Your task to perform on an android device: Open calendar and show me the fourth week of next month Image 0: 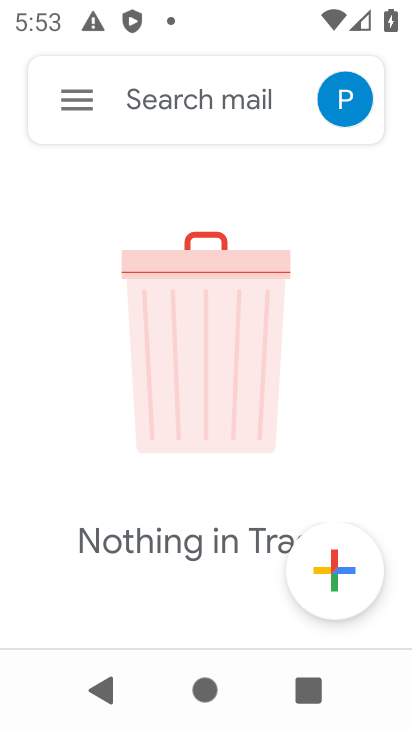
Step 0: press home button
Your task to perform on an android device: Open calendar and show me the fourth week of next month Image 1: 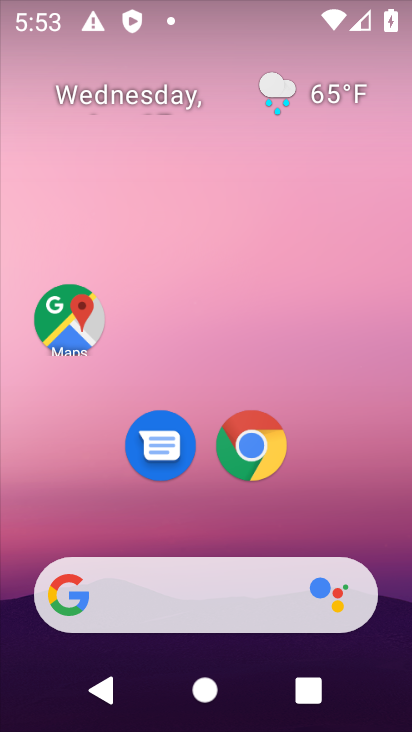
Step 1: drag from (200, 484) to (184, 148)
Your task to perform on an android device: Open calendar and show me the fourth week of next month Image 2: 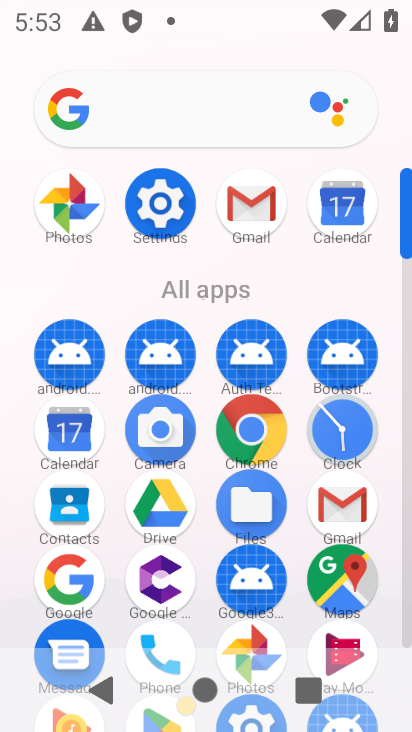
Step 2: click (334, 219)
Your task to perform on an android device: Open calendar and show me the fourth week of next month Image 3: 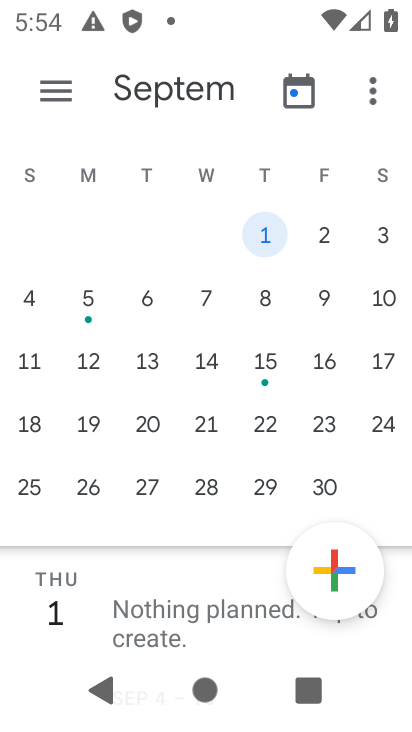
Step 3: click (33, 410)
Your task to perform on an android device: Open calendar and show me the fourth week of next month Image 4: 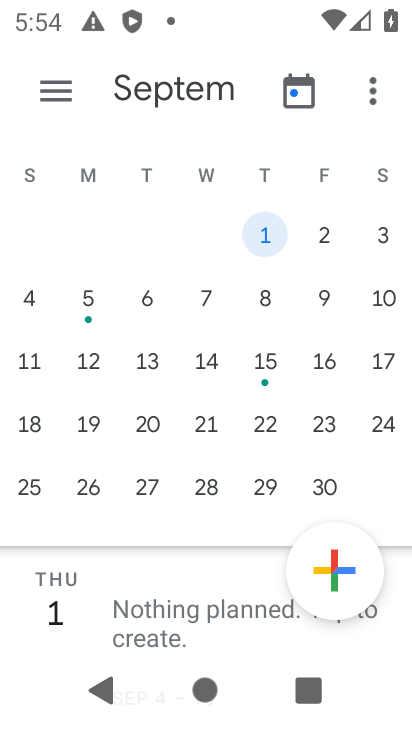
Step 4: click (36, 424)
Your task to perform on an android device: Open calendar and show me the fourth week of next month Image 5: 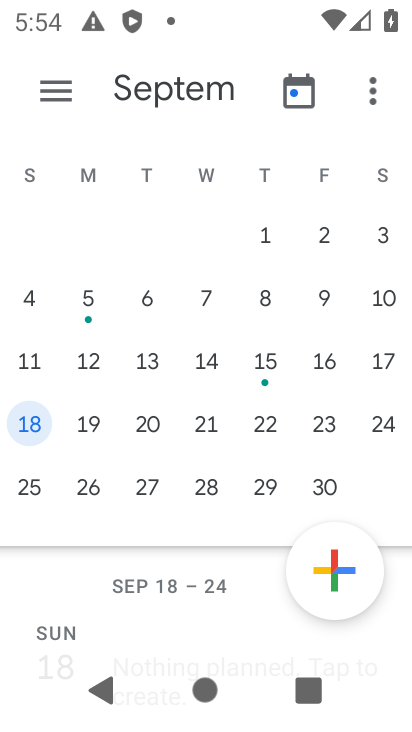
Step 5: task complete